Your task to perform on an android device: visit the assistant section in the google photos Image 0: 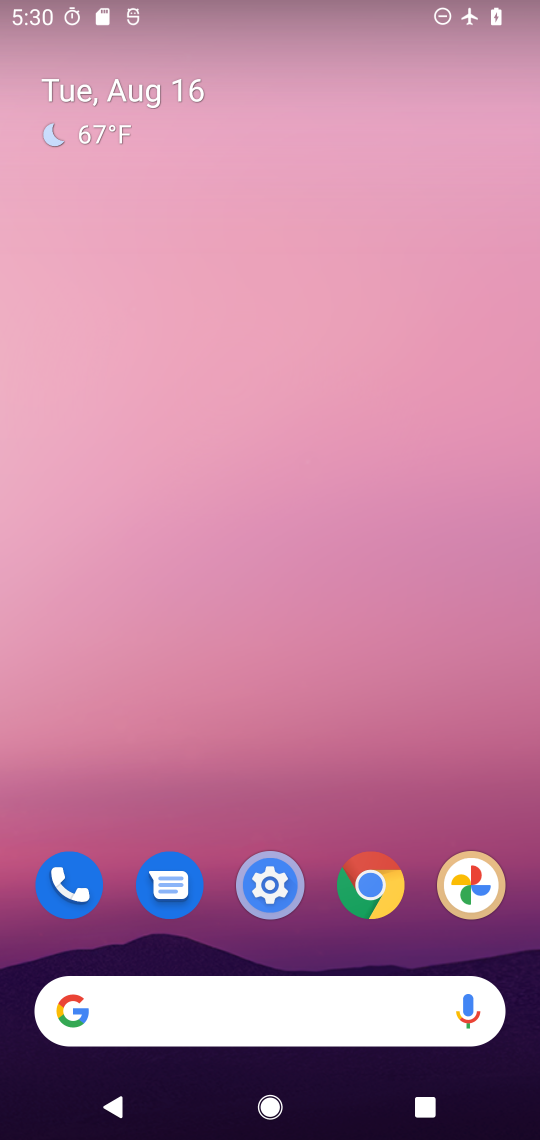
Step 0: drag from (89, 948) to (92, 107)
Your task to perform on an android device: visit the assistant section in the google photos Image 1: 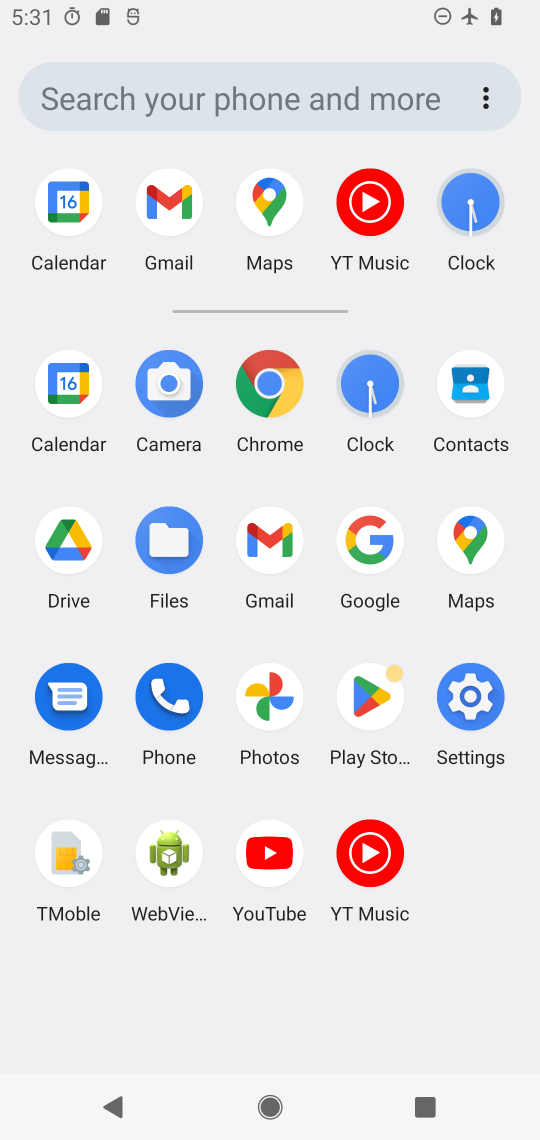
Step 1: click (263, 679)
Your task to perform on an android device: visit the assistant section in the google photos Image 2: 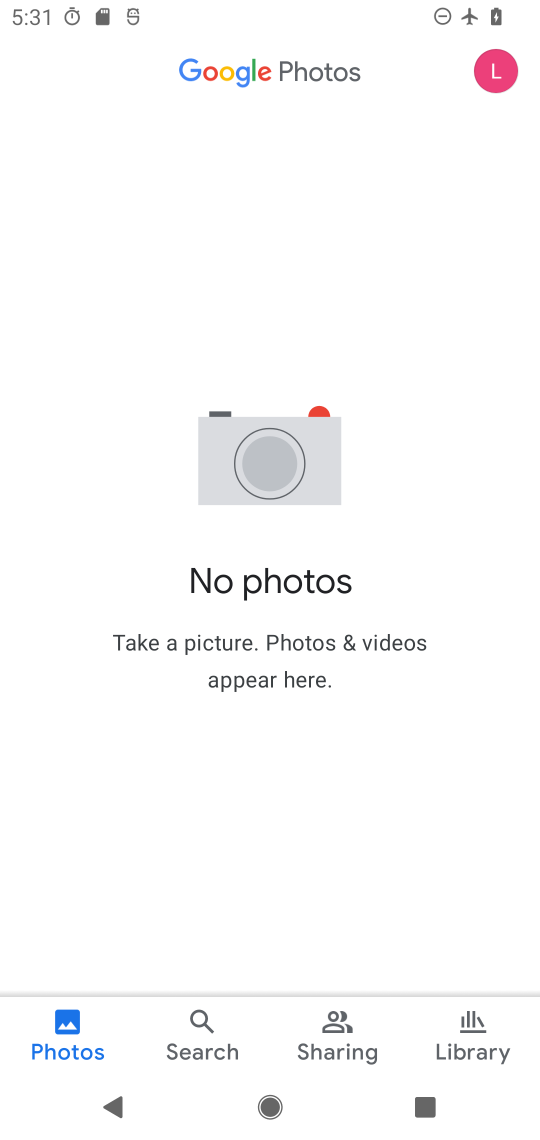
Step 2: click (511, 74)
Your task to perform on an android device: visit the assistant section in the google photos Image 3: 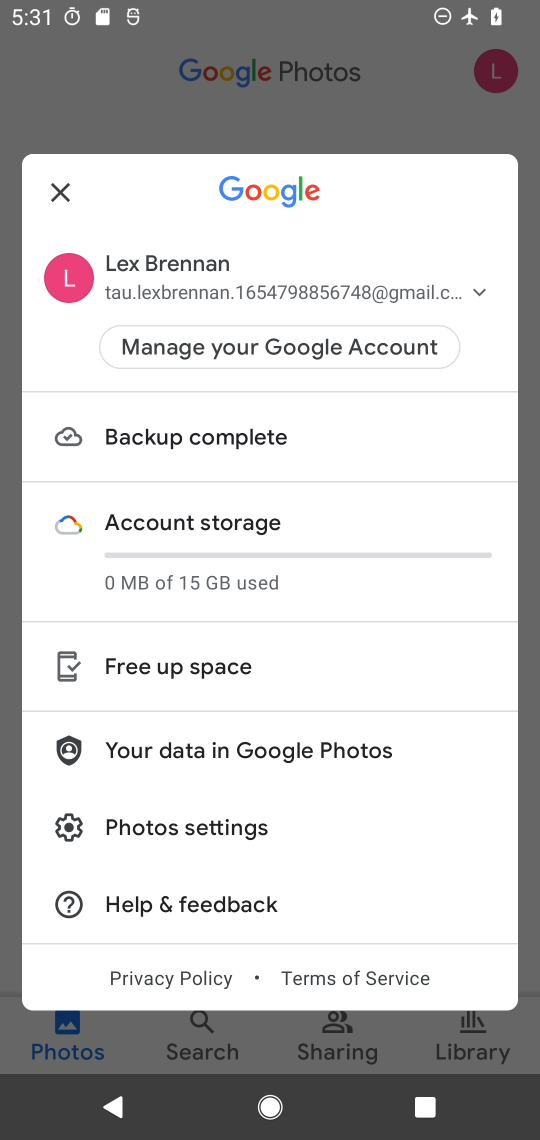
Step 3: click (148, 109)
Your task to perform on an android device: visit the assistant section in the google photos Image 4: 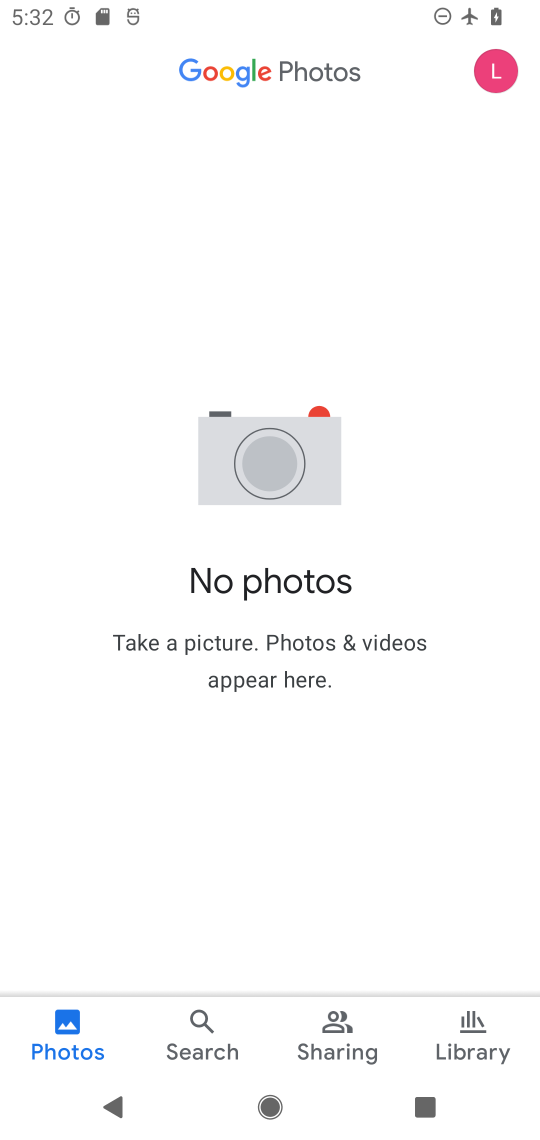
Step 4: task complete